Your task to perform on an android device: Go to calendar. Show me events next week Image 0: 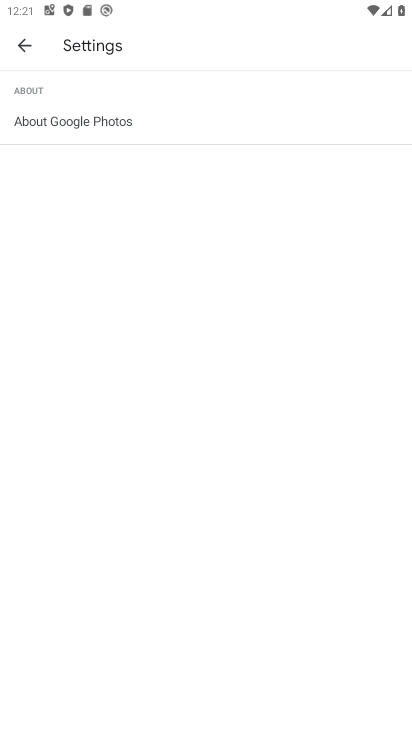
Step 0: press home button
Your task to perform on an android device: Go to calendar. Show me events next week Image 1: 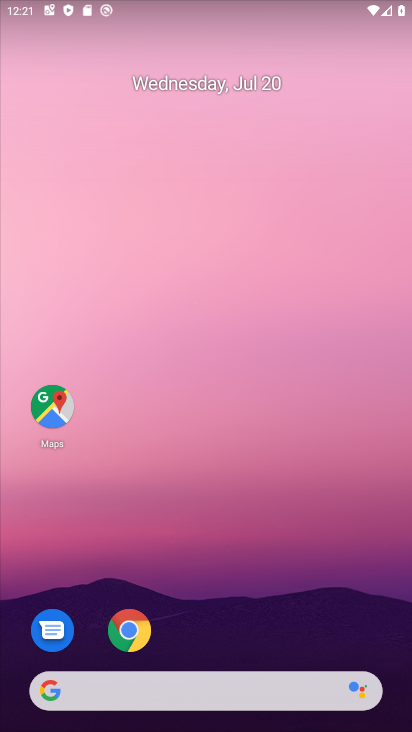
Step 1: drag from (262, 660) to (272, 56)
Your task to perform on an android device: Go to calendar. Show me events next week Image 2: 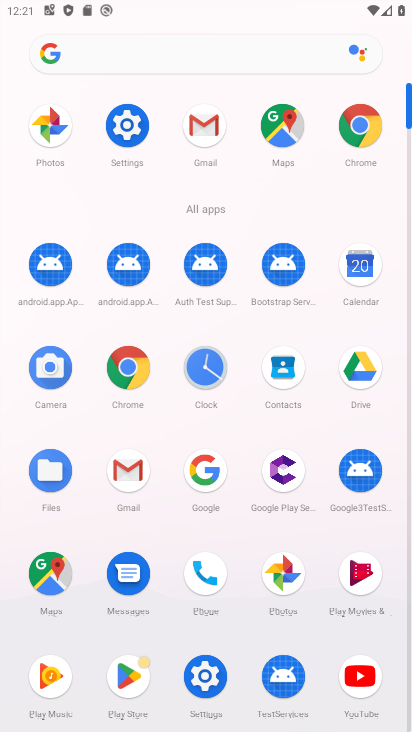
Step 2: click (361, 271)
Your task to perform on an android device: Go to calendar. Show me events next week Image 3: 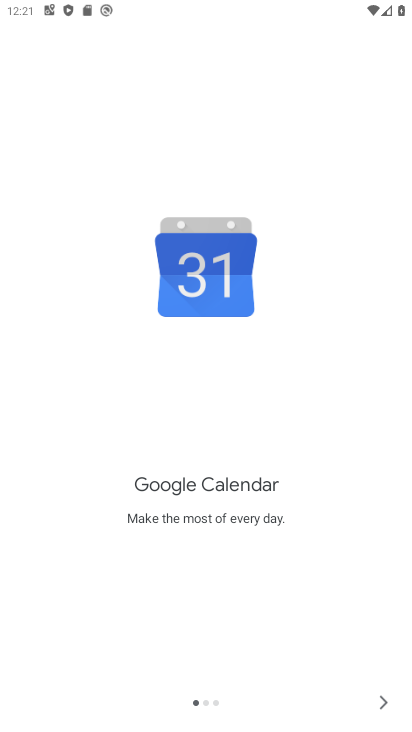
Step 3: click (387, 701)
Your task to perform on an android device: Go to calendar. Show me events next week Image 4: 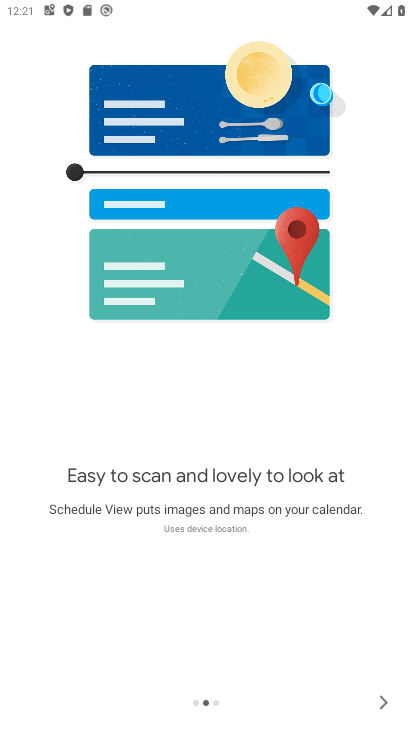
Step 4: click (380, 702)
Your task to perform on an android device: Go to calendar. Show me events next week Image 5: 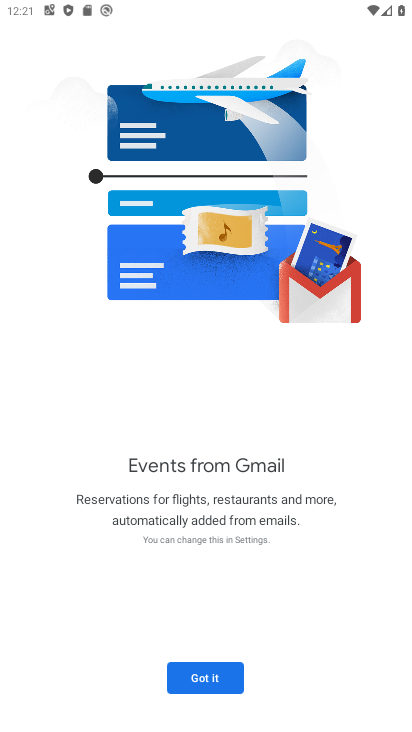
Step 5: click (215, 680)
Your task to perform on an android device: Go to calendar. Show me events next week Image 6: 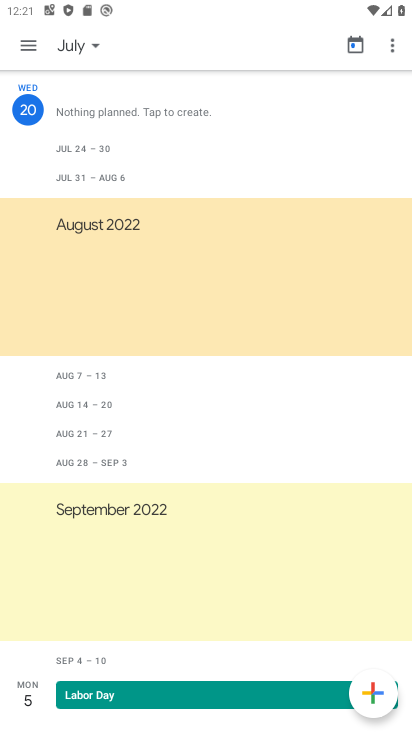
Step 6: click (24, 44)
Your task to perform on an android device: Go to calendar. Show me events next week Image 7: 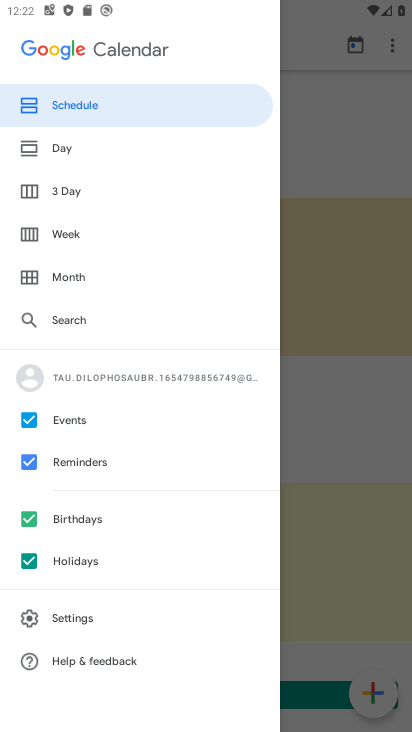
Step 7: click (74, 233)
Your task to perform on an android device: Go to calendar. Show me events next week Image 8: 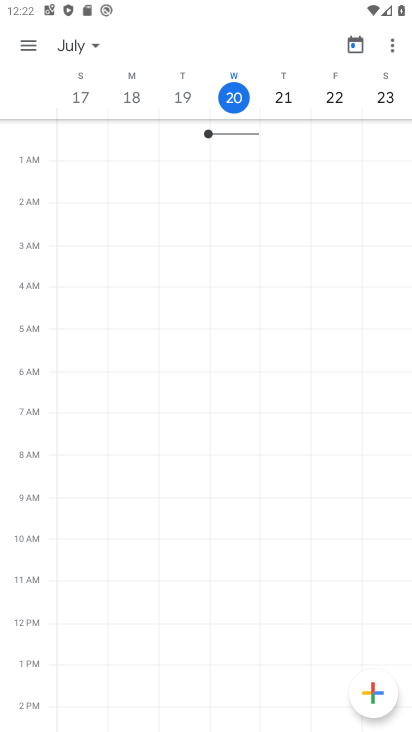
Step 8: task complete